Your task to perform on an android device: snooze an email in the gmail app Image 0: 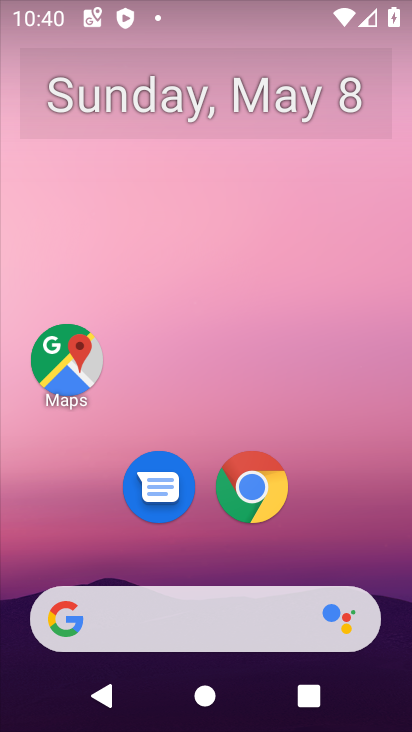
Step 0: drag from (219, 503) to (272, 159)
Your task to perform on an android device: snooze an email in the gmail app Image 1: 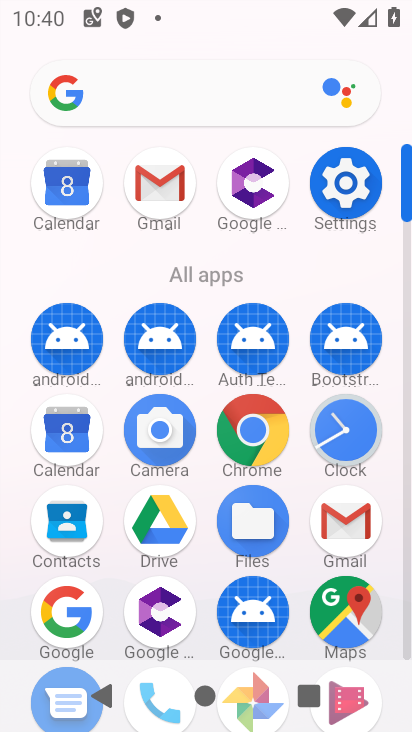
Step 1: click (155, 195)
Your task to perform on an android device: snooze an email in the gmail app Image 2: 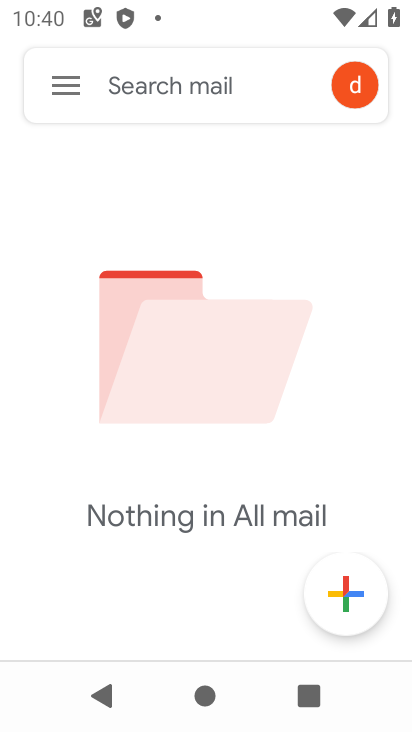
Step 2: click (63, 77)
Your task to perform on an android device: snooze an email in the gmail app Image 3: 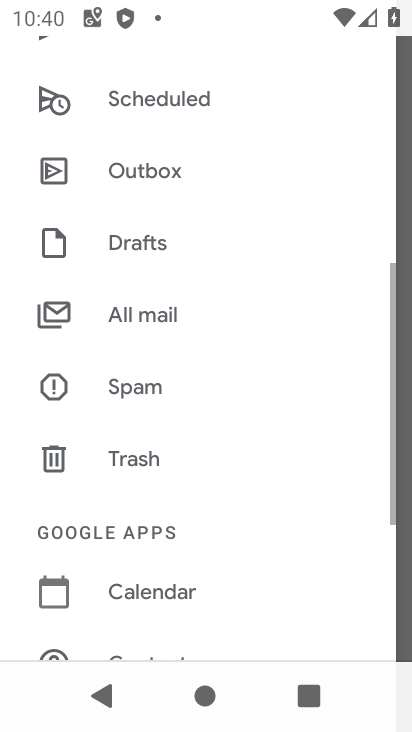
Step 3: task complete